Your task to perform on an android device: Go to Yahoo.com Image 0: 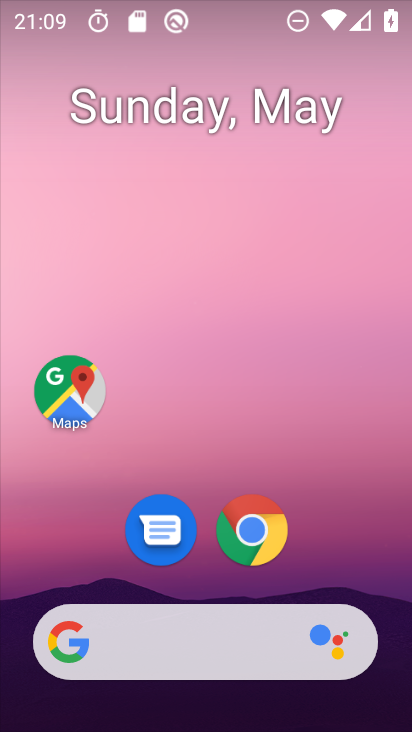
Step 0: drag from (194, 706) to (391, 121)
Your task to perform on an android device: Go to Yahoo.com Image 1: 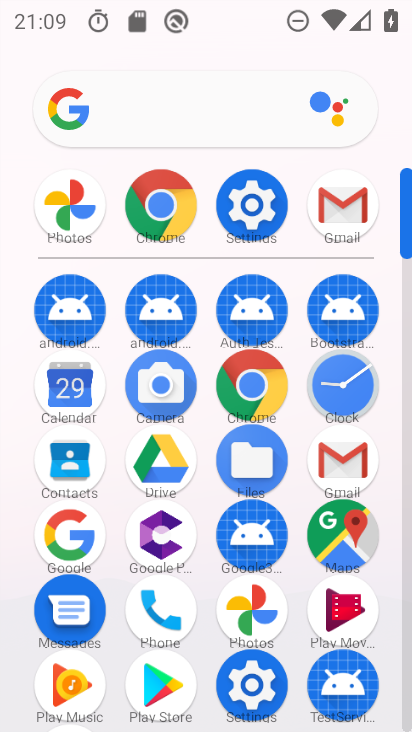
Step 1: click (184, 217)
Your task to perform on an android device: Go to Yahoo.com Image 2: 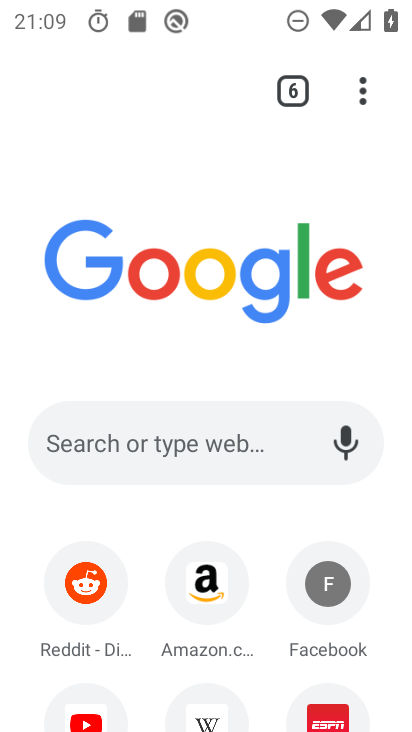
Step 2: drag from (138, 608) to (285, 202)
Your task to perform on an android device: Go to Yahoo.com Image 3: 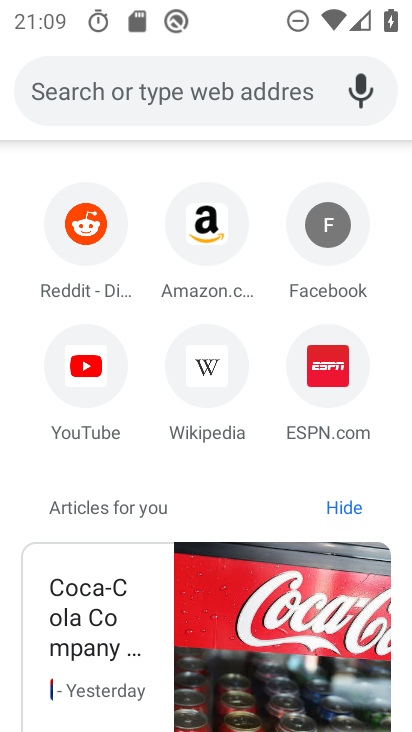
Step 3: click (194, 509)
Your task to perform on an android device: Go to Yahoo.com Image 4: 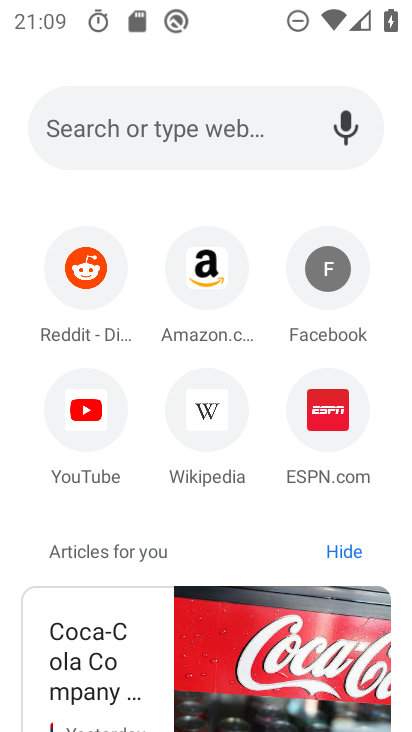
Step 4: click (174, 114)
Your task to perform on an android device: Go to Yahoo.com Image 5: 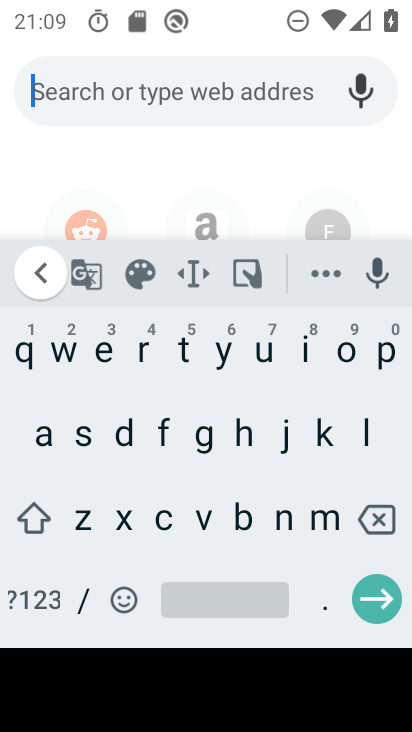
Step 5: click (223, 352)
Your task to perform on an android device: Go to Yahoo.com Image 6: 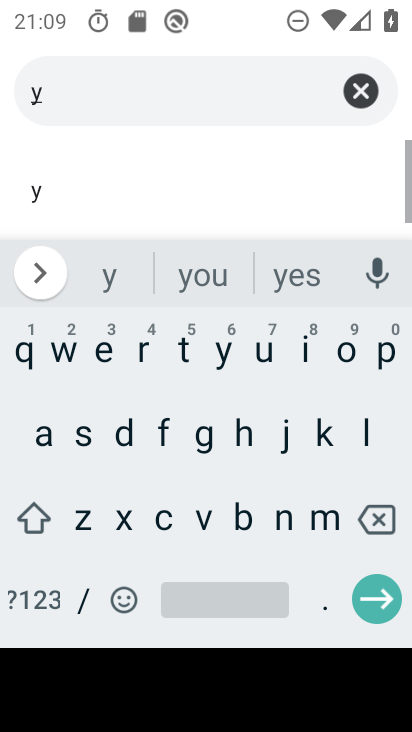
Step 6: click (35, 432)
Your task to perform on an android device: Go to Yahoo.com Image 7: 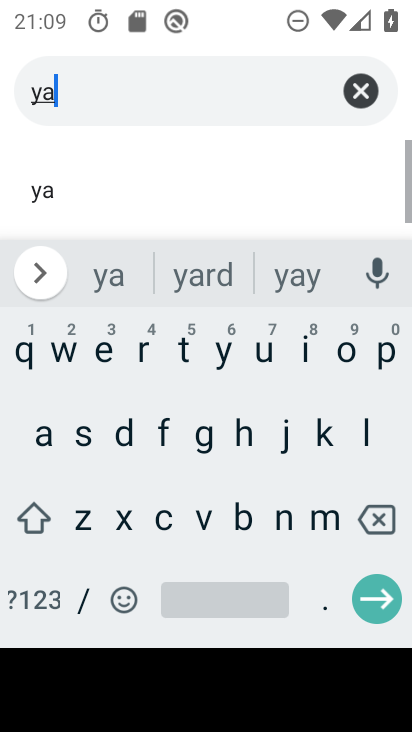
Step 7: click (240, 433)
Your task to perform on an android device: Go to Yahoo.com Image 8: 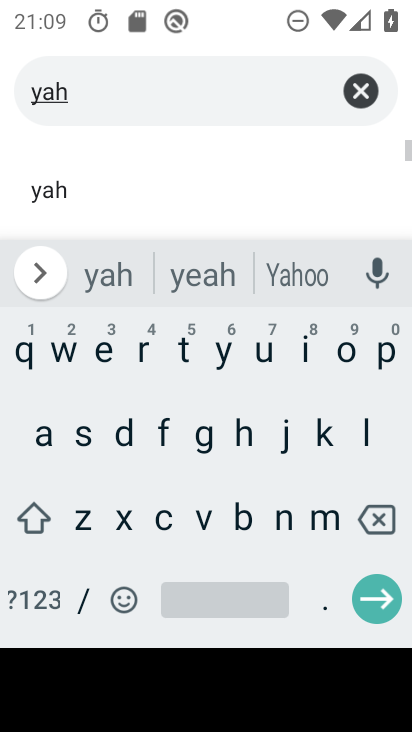
Step 8: click (329, 270)
Your task to perform on an android device: Go to Yahoo.com Image 9: 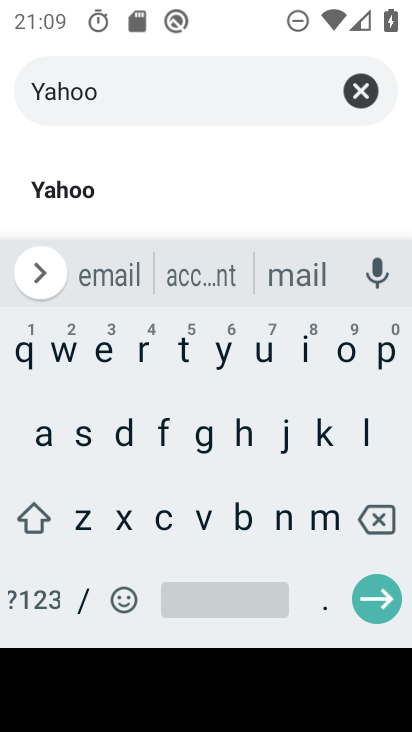
Step 9: click (310, 618)
Your task to perform on an android device: Go to Yahoo.com Image 10: 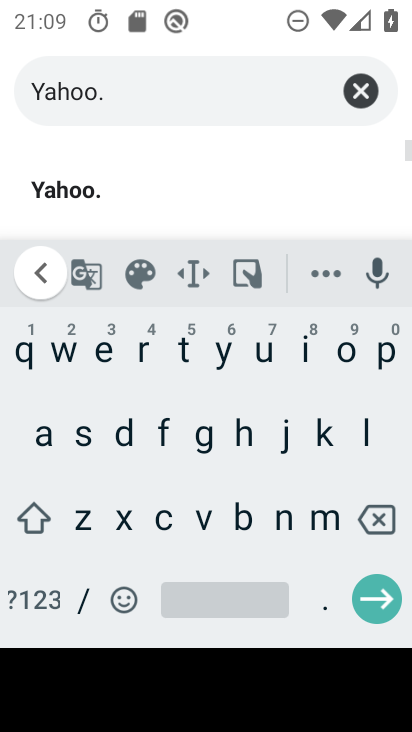
Step 10: click (160, 527)
Your task to perform on an android device: Go to Yahoo.com Image 11: 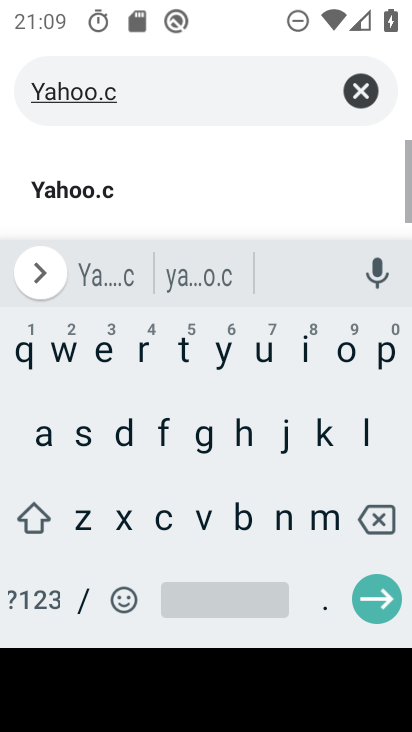
Step 11: click (340, 360)
Your task to perform on an android device: Go to Yahoo.com Image 12: 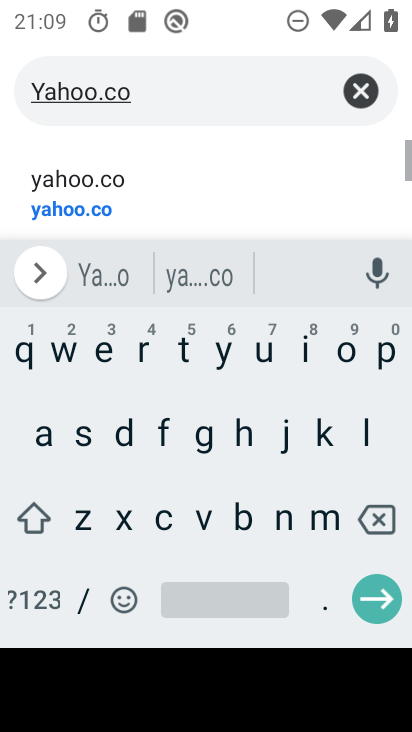
Step 12: click (315, 528)
Your task to perform on an android device: Go to Yahoo.com Image 13: 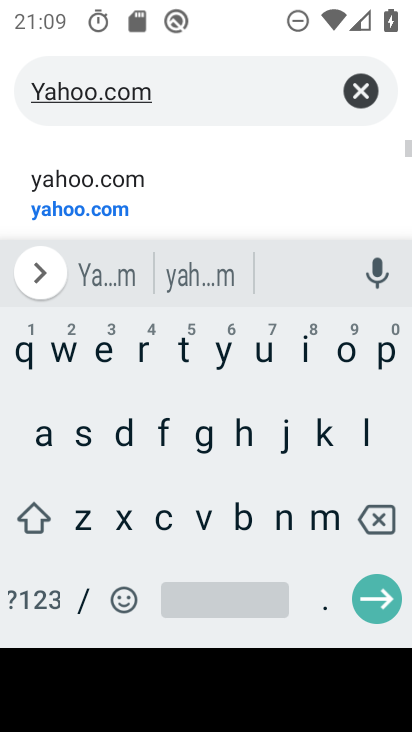
Step 13: click (377, 615)
Your task to perform on an android device: Go to Yahoo.com Image 14: 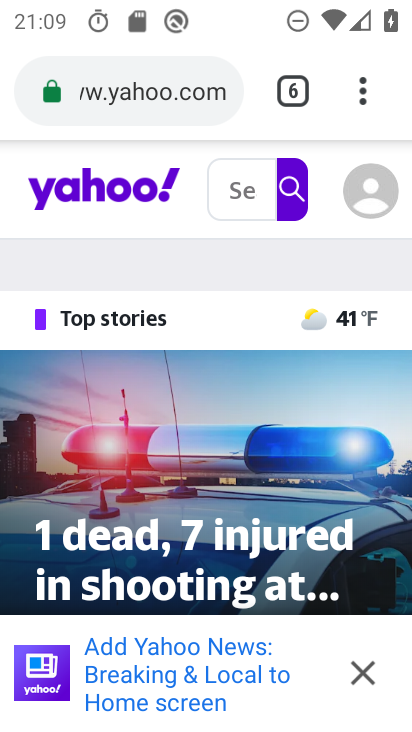
Step 14: task complete